Your task to perform on an android device: Open the web browser Image 0: 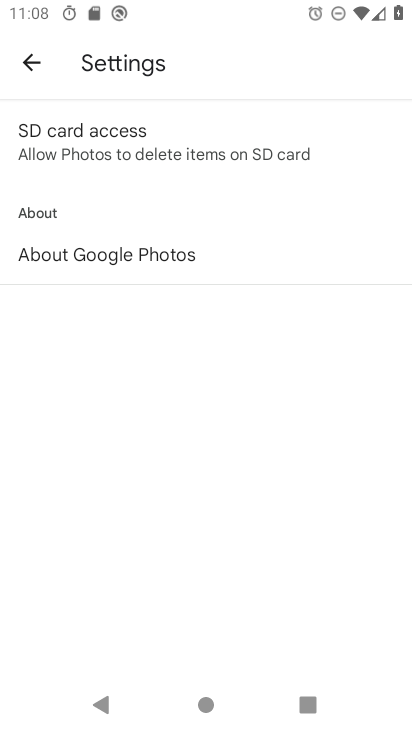
Step 0: press home button
Your task to perform on an android device: Open the web browser Image 1: 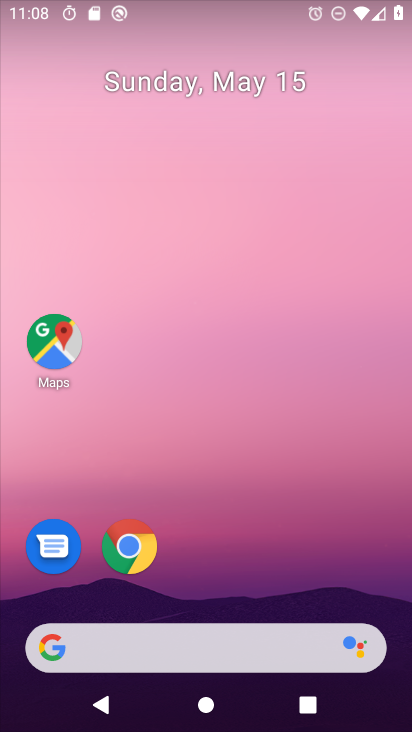
Step 1: click (133, 541)
Your task to perform on an android device: Open the web browser Image 2: 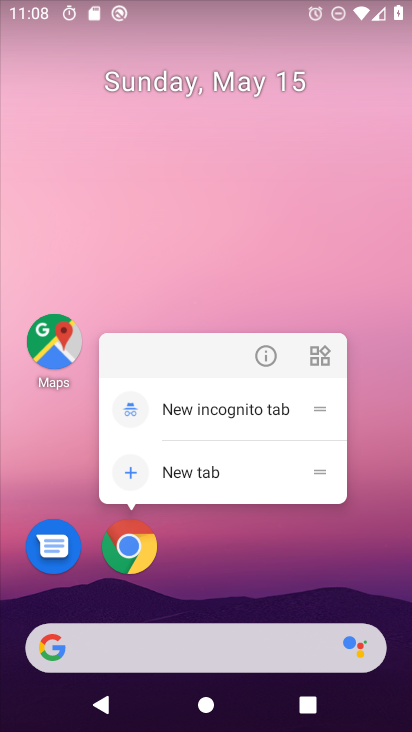
Step 2: click (133, 539)
Your task to perform on an android device: Open the web browser Image 3: 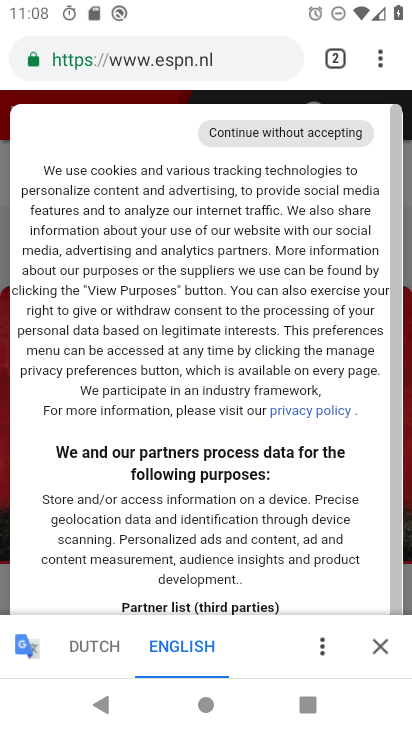
Step 3: task complete